Your task to perform on an android device: uninstall "HBO Max: Stream TV & Movies" Image 0: 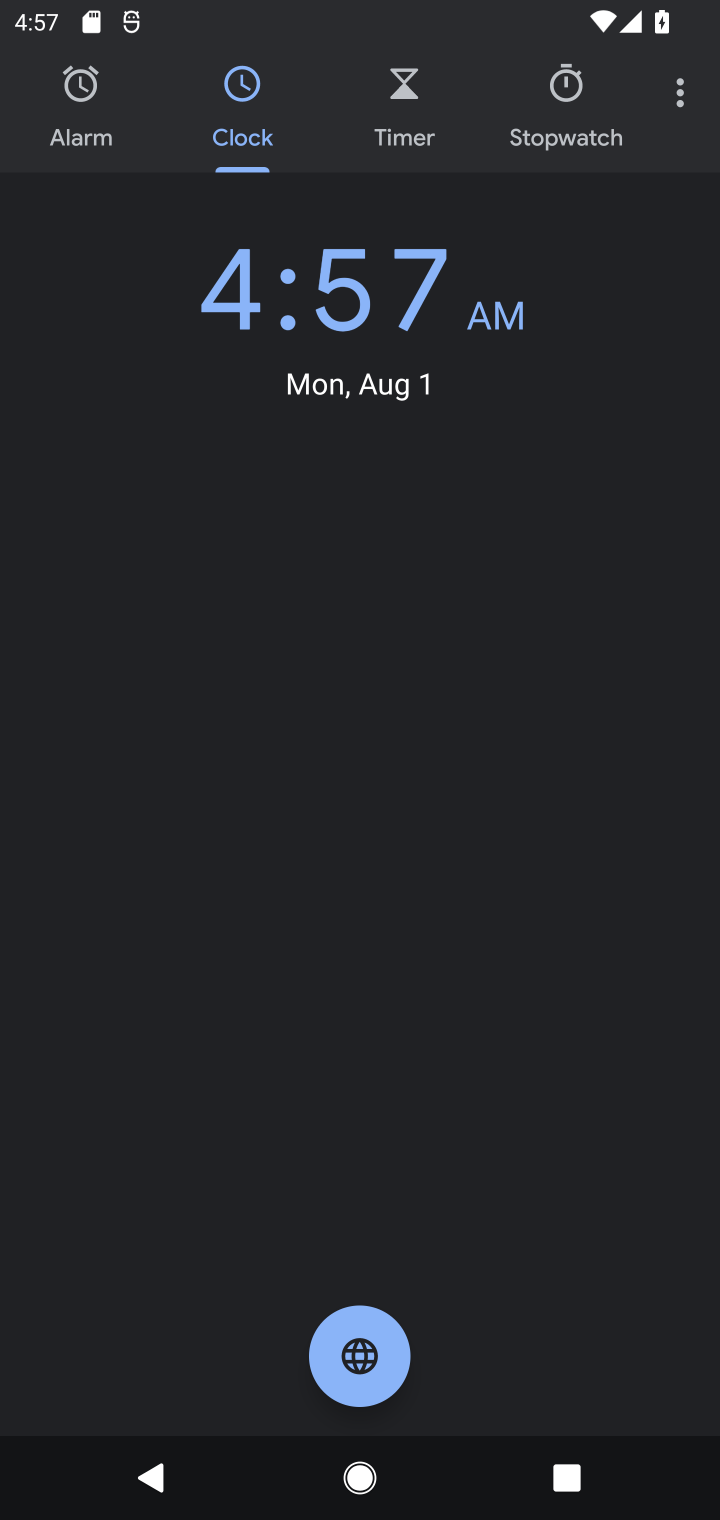
Step 0: press home button
Your task to perform on an android device: uninstall "HBO Max: Stream TV & Movies" Image 1: 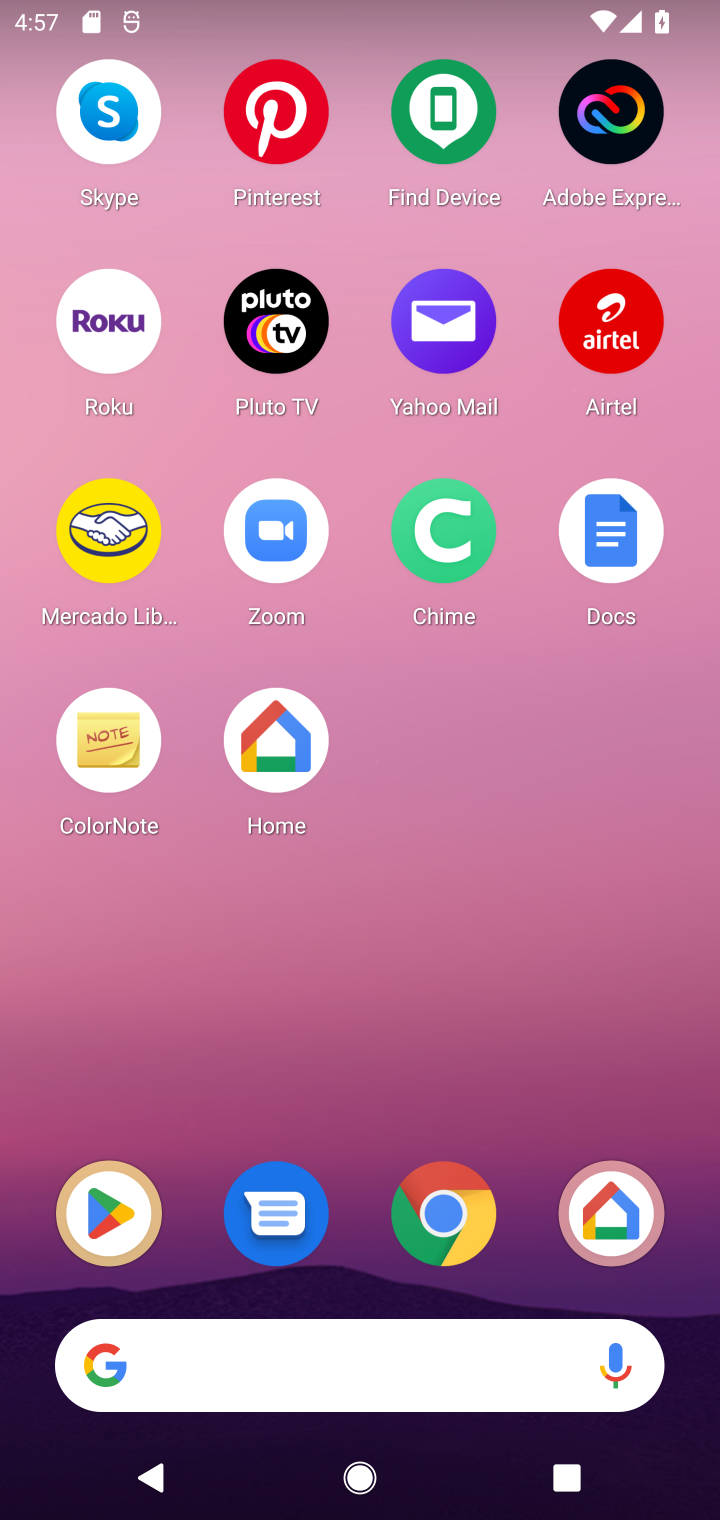
Step 1: drag from (530, 734) to (446, 14)
Your task to perform on an android device: uninstall "HBO Max: Stream TV & Movies" Image 2: 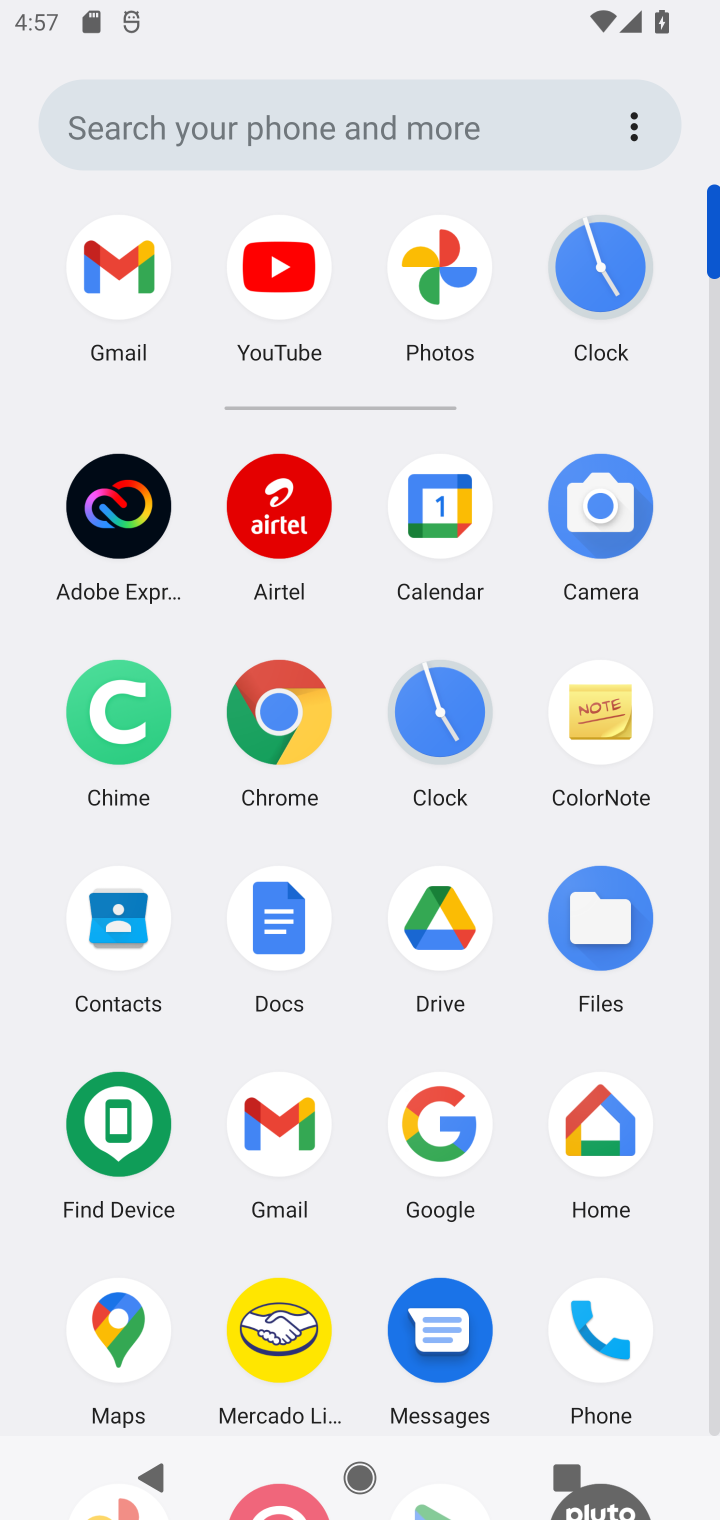
Step 2: drag from (355, 1057) to (364, 394)
Your task to perform on an android device: uninstall "HBO Max: Stream TV & Movies" Image 3: 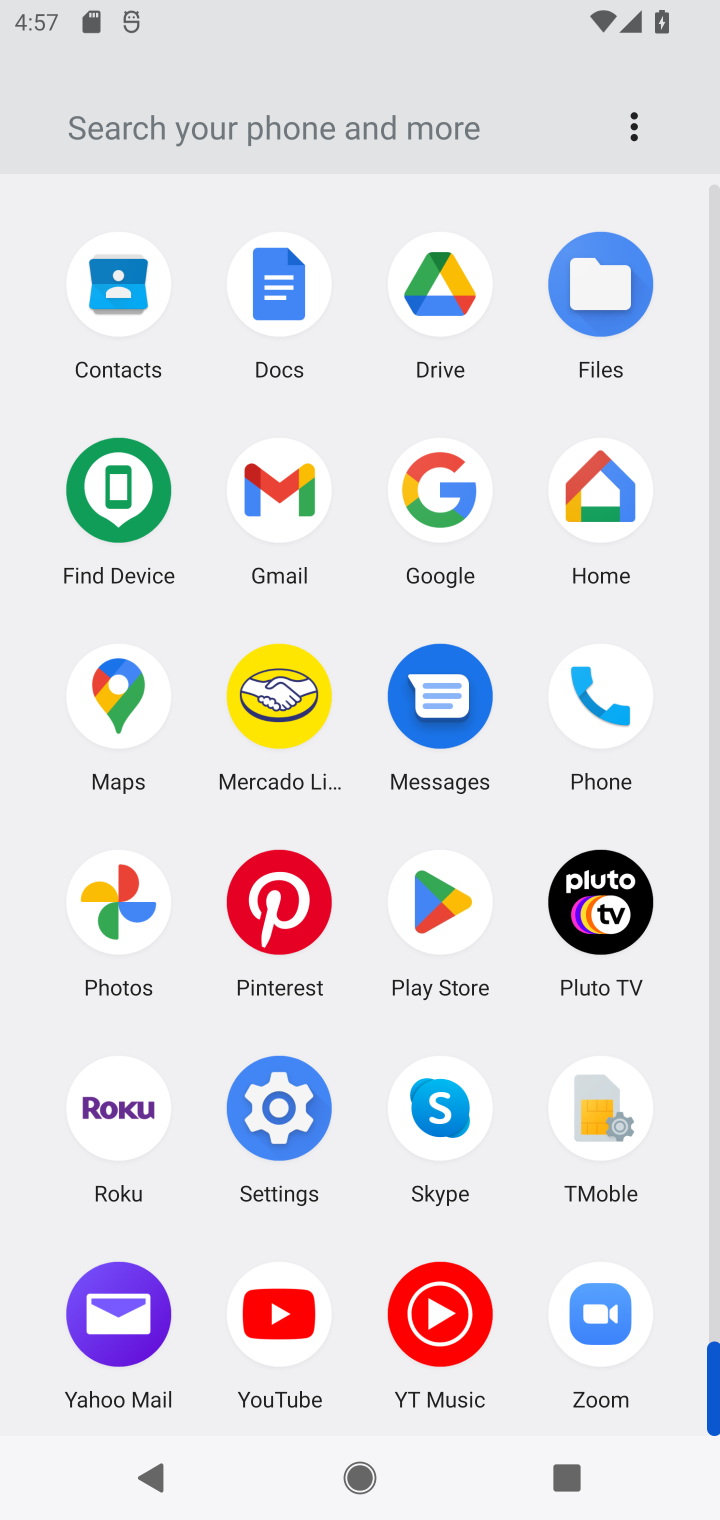
Step 3: click (440, 943)
Your task to perform on an android device: uninstall "HBO Max: Stream TV & Movies" Image 4: 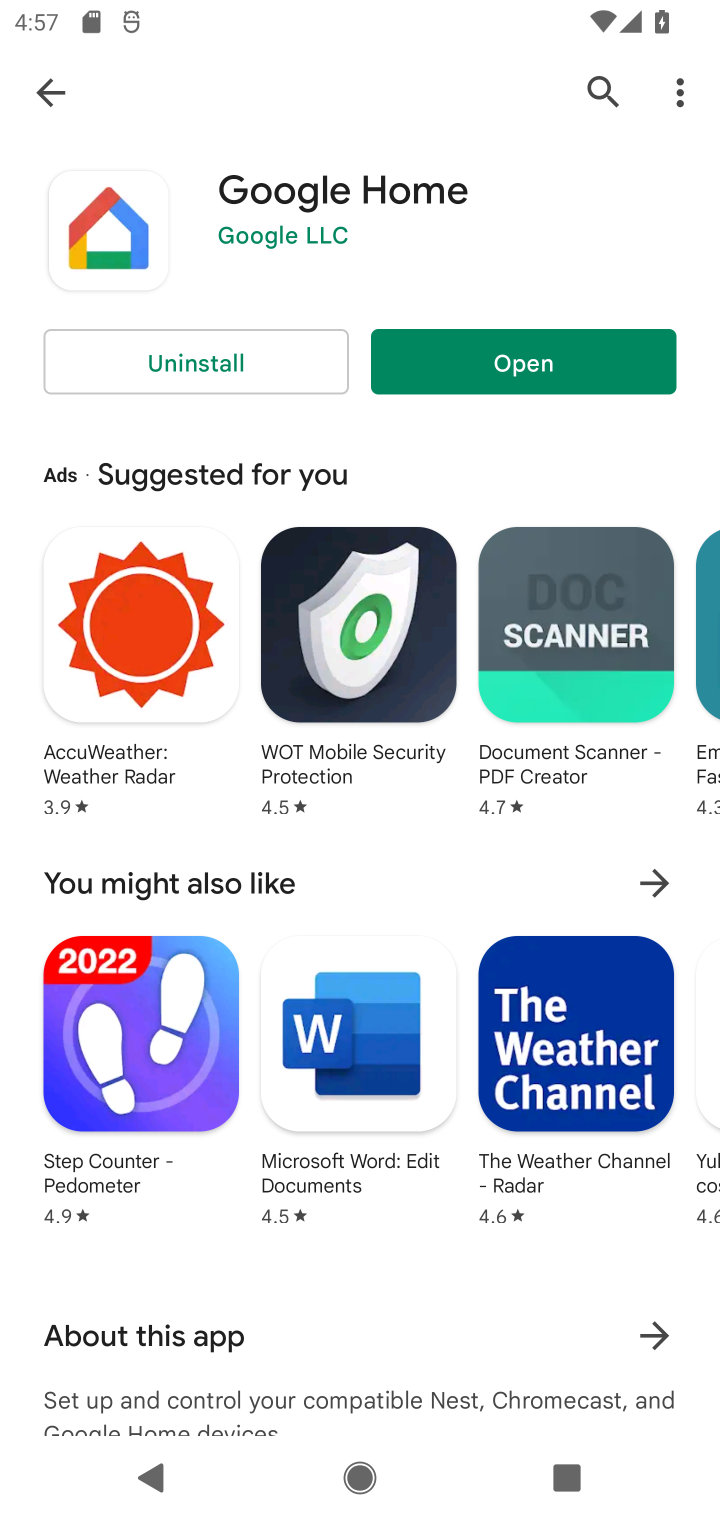
Step 4: click (606, 74)
Your task to perform on an android device: uninstall "HBO Max: Stream TV & Movies" Image 5: 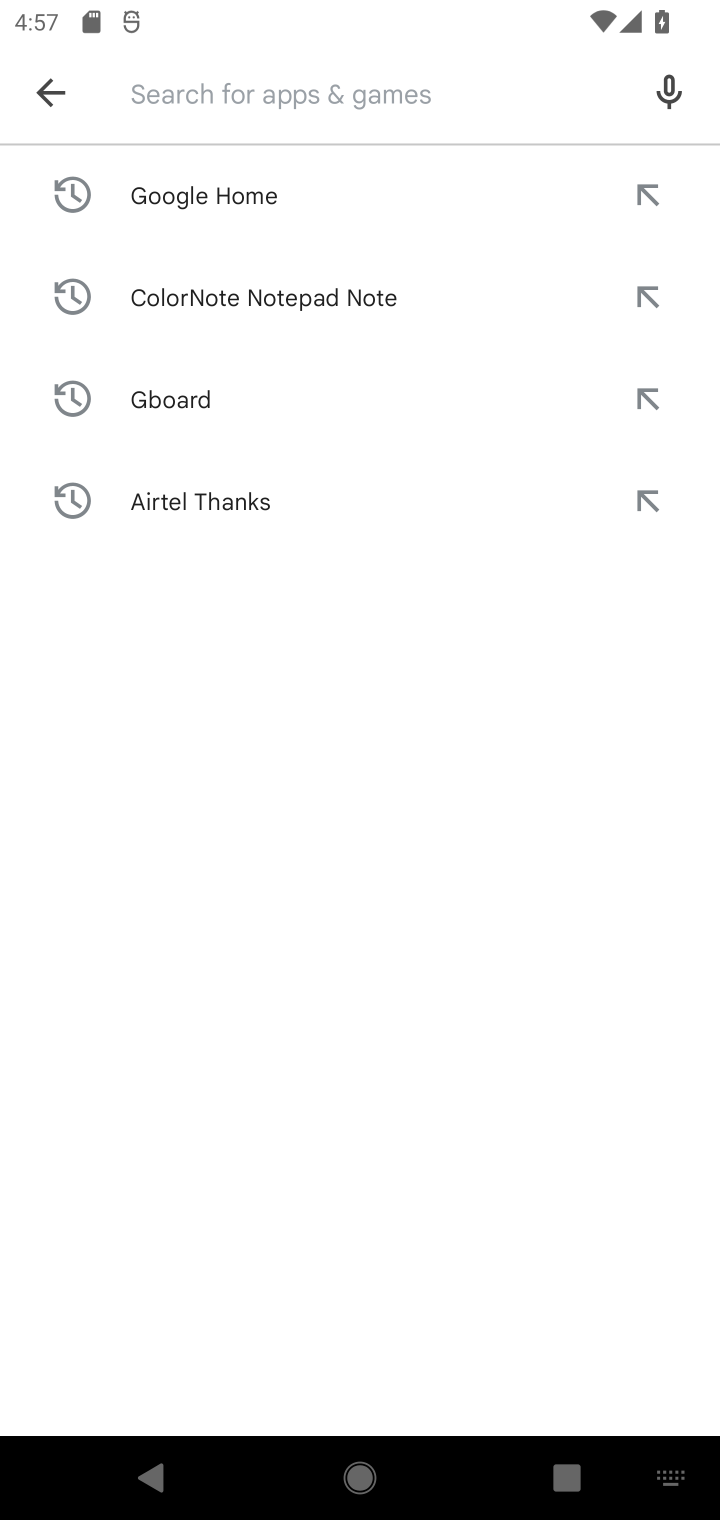
Step 5: type "HBO Max\"
Your task to perform on an android device: uninstall "HBO Max: Stream TV & Movies" Image 6: 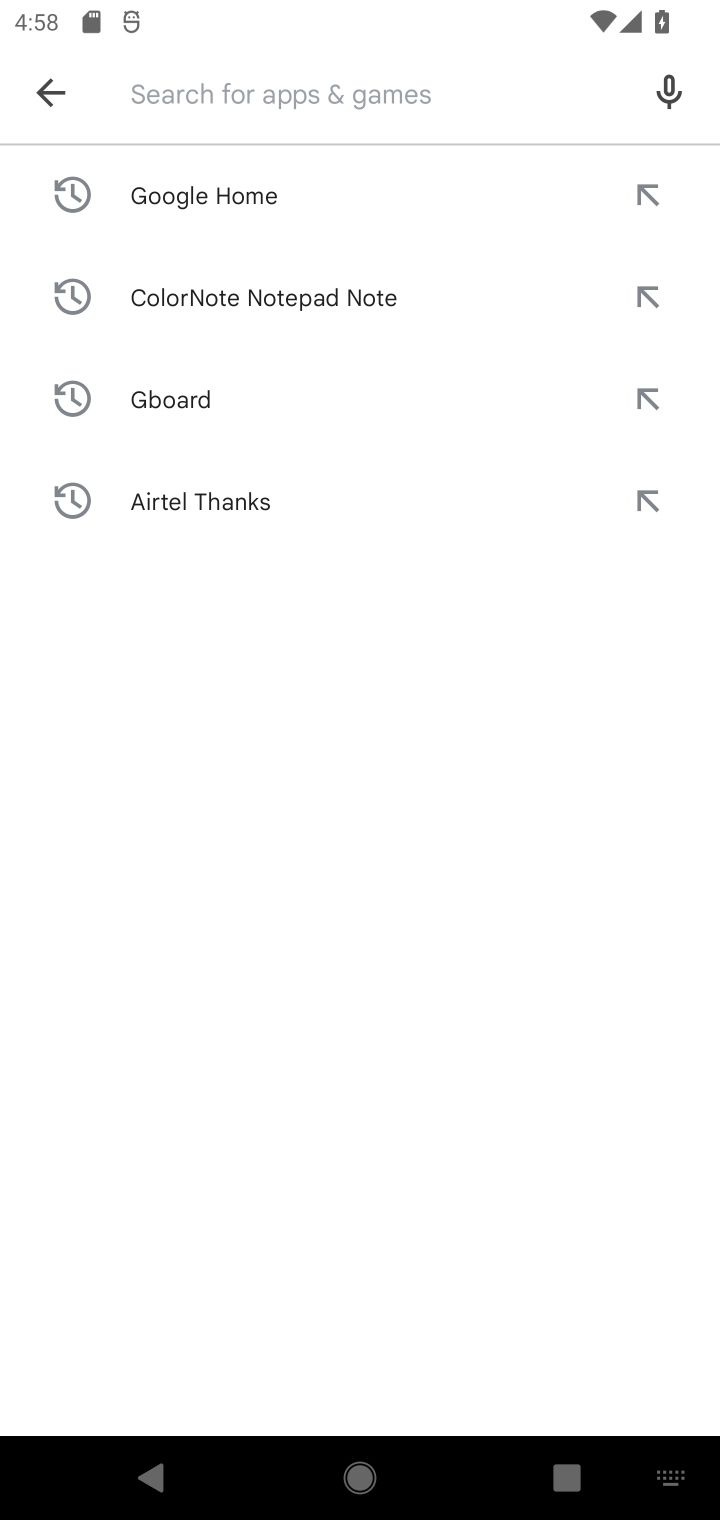
Step 6: type "HBO Max: Stream TV & Movies"
Your task to perform on an android device: uninstall "HBO Max: Stream TV & Movies" Image 7: 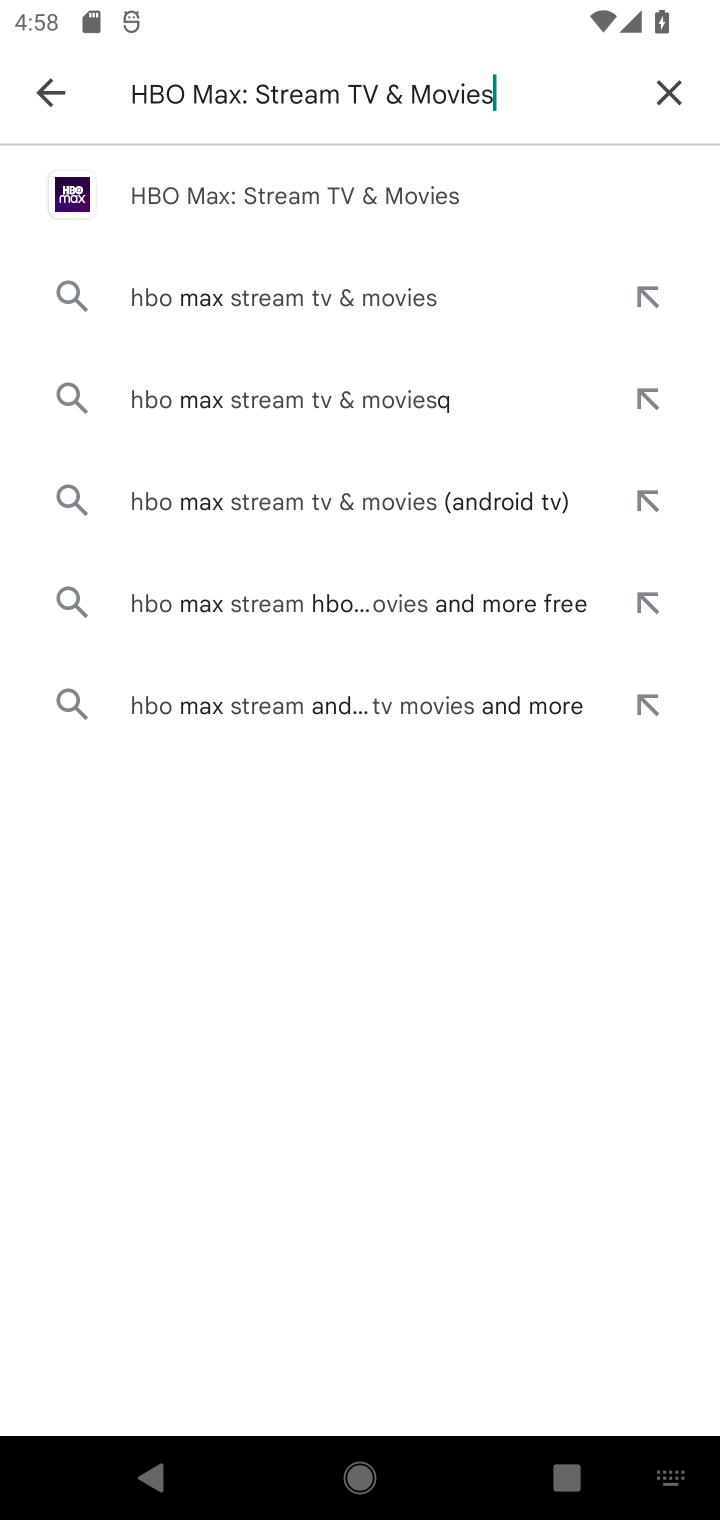
Step 7: click (211, 186)
Your task to perform on an android device: uninstall "HBO Max: Stream TV & Movies" Image 8: 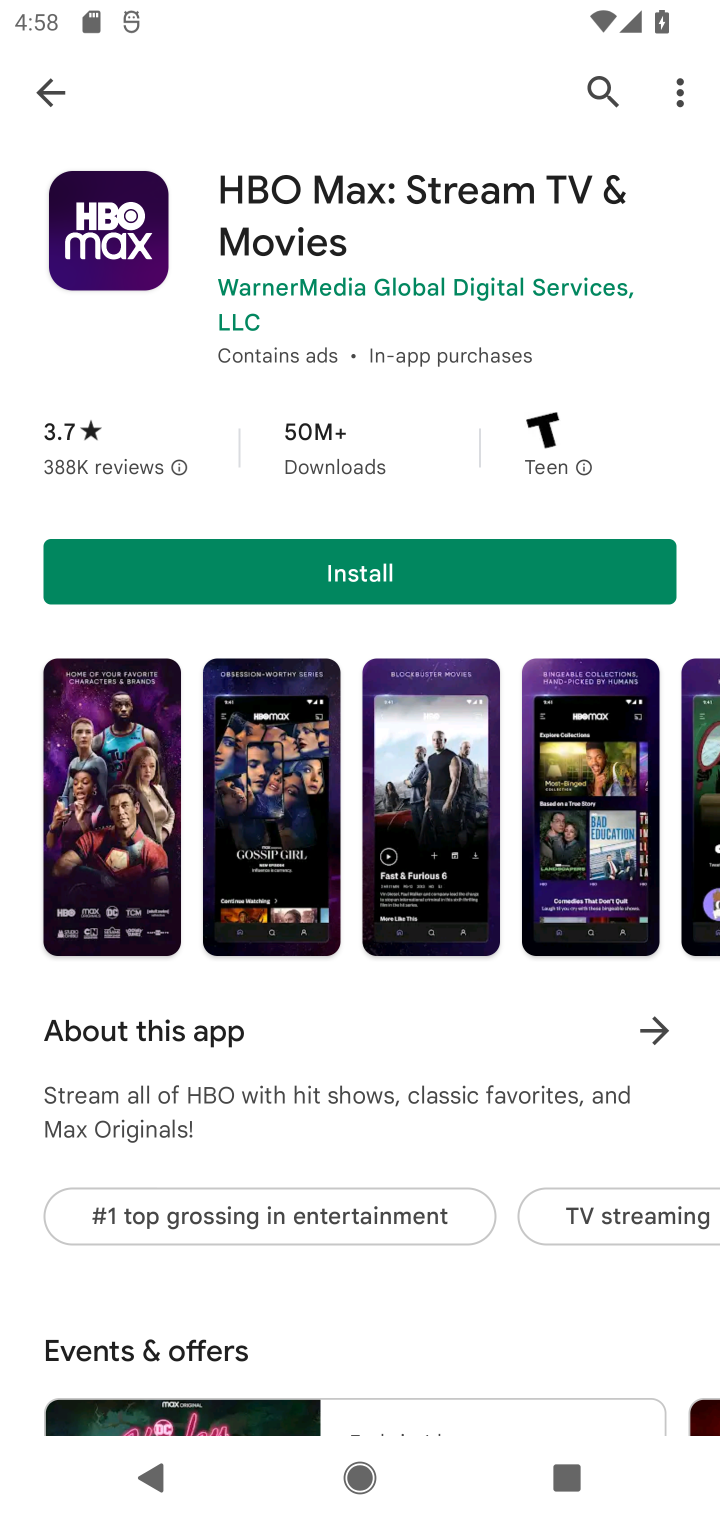
Step 8: task complete